Your task to perform on an android device: turn off sleep mode Image 0: 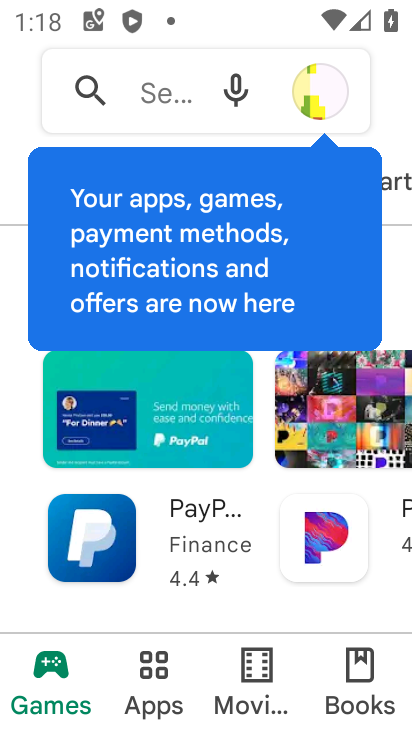
Step 0: press home button
Your task to perform on an android device: turn off sleep mode Image 1: 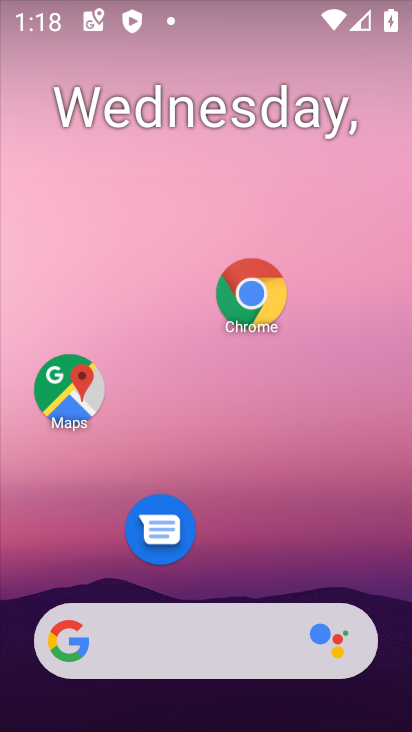
Step 1: drag from (260, 565) to (252, 172)
Your task to perform on an android device: turn off sleep mode Image 2: 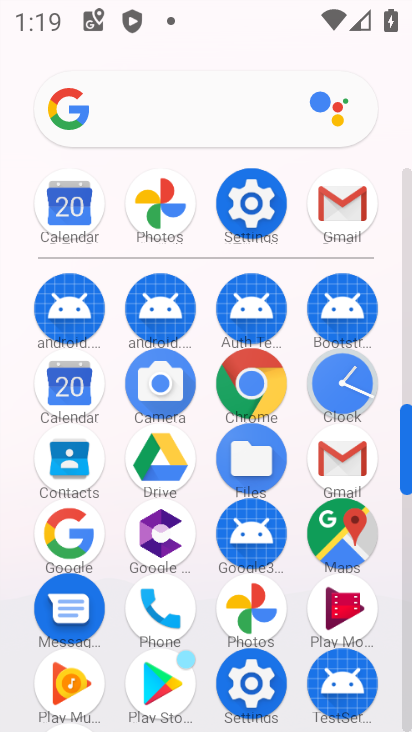
Step 2: click (254, 190)
Your task to perform on an android device: turn off sleep mode Image 3: 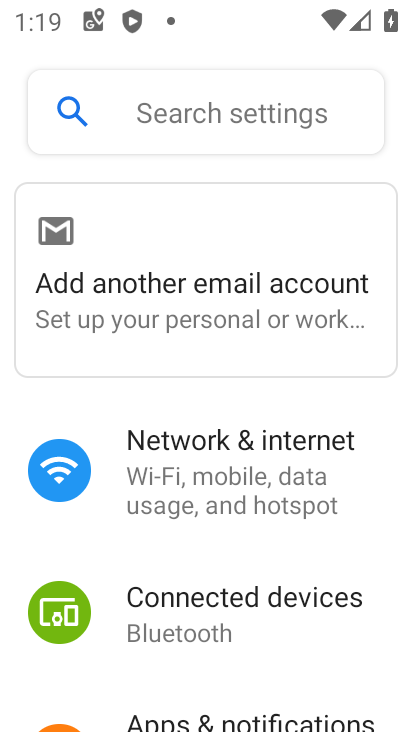
Step 3: drag from (210, 529) to (225, 147)
Your task to perform on an android device: turn off sleep mode Image 4: 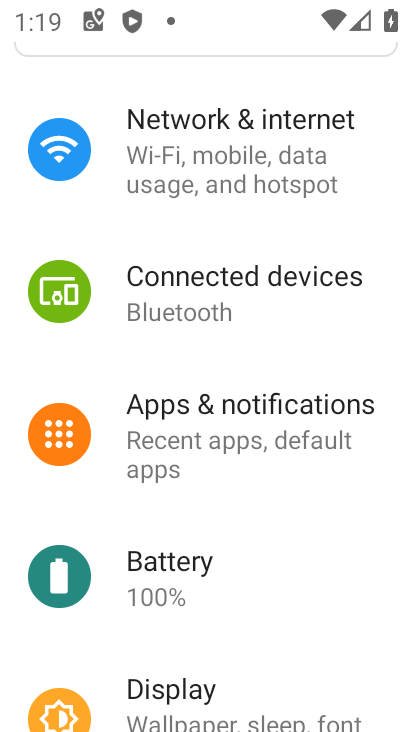
Step 4: drag from (241, 627) to (267, 280)
Your task to perform on an android device: turn off sleep mode Image 5: 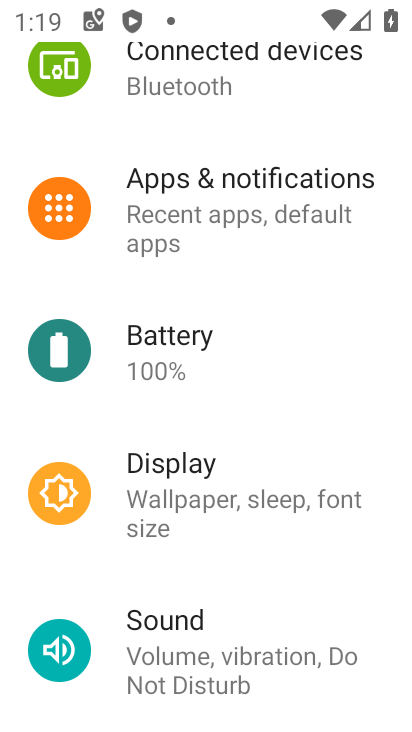
Step 5: click (304, 483)
Your task to perform on an android device: turn off sleep mode Image 6: 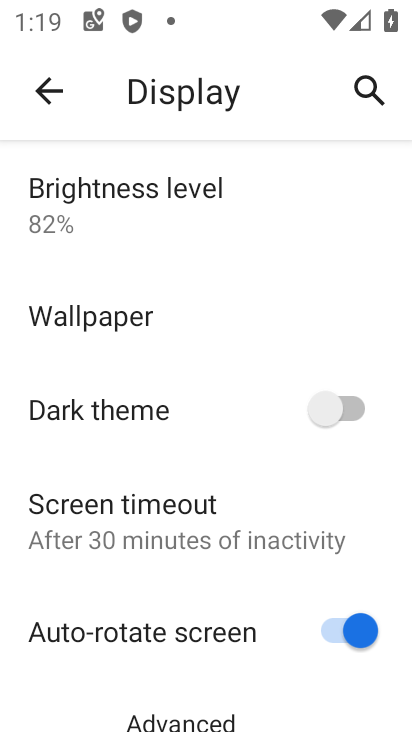
Step 6: drag from (189, 547) to (185, 263)
Your task to perform on an android device: turn off sleep mode Image 7: 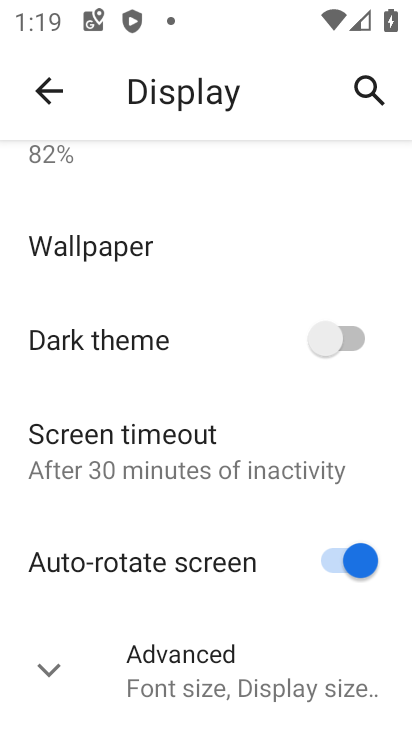
Step 7: click (83, 676)
Your task to perform on an android device: turn off sleep mode Image 8: 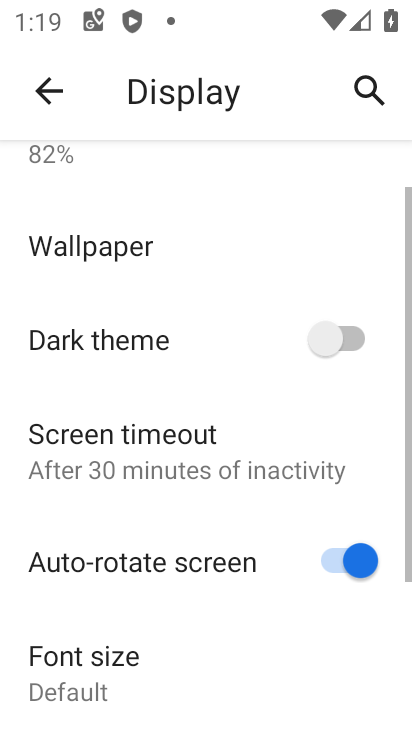
Step 8: task complete